Your task to perform on an android device: check google app version Image 0: 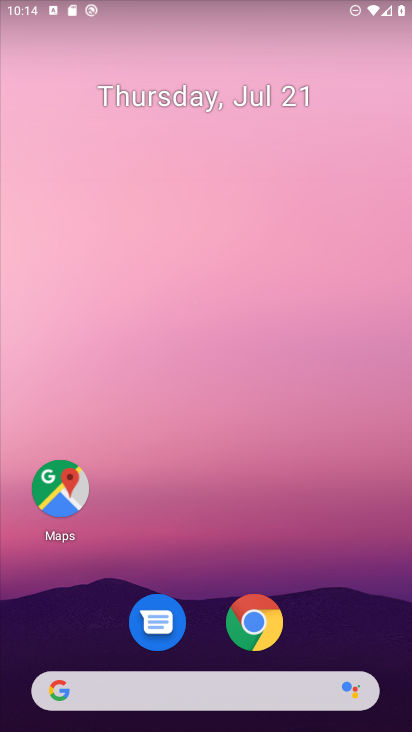
Step 0: drag from (153, 703) to (371, 150)
Your task to perform on an android device: check google app version Image 1: 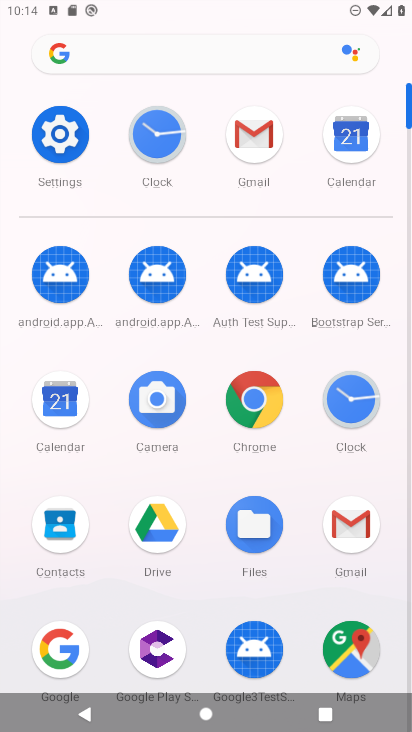
Step 1: click (43, 645)
Your task to perform on an android device: check google app version Image 2: 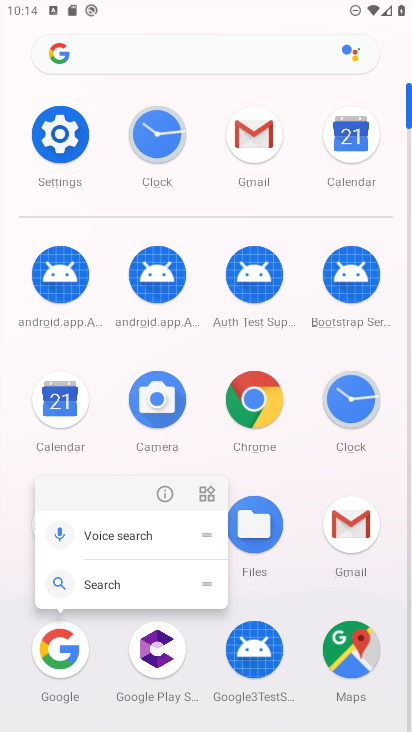
Step 2: click (170, 490)
Your task to perform on an android device: check google app version Image 3: 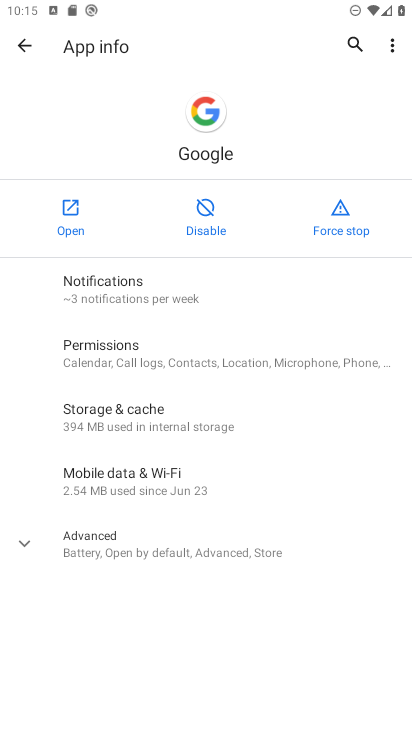
Step 3: click (246, 539)
Your task to perform on an android device: check google app version Image 4: 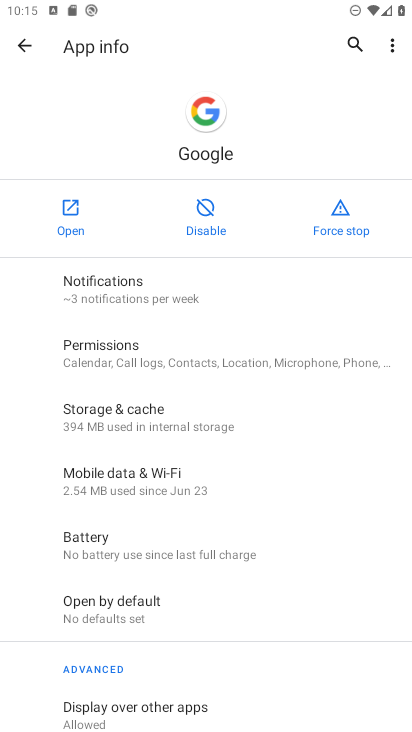
Step 4: task complete